Your task to perform on an android device: uninstall "Paramount+ | Peak Streaming" Image 0: 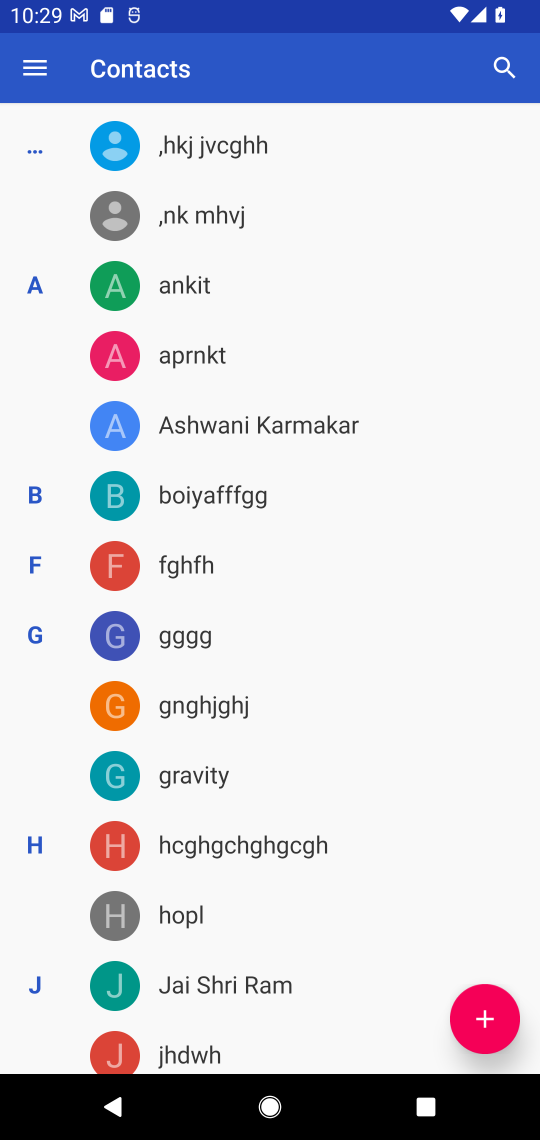
Step 0: press home button
Your task to perform on an android device: uninstall "Paramount+ | Peak Streaming" Image 1: 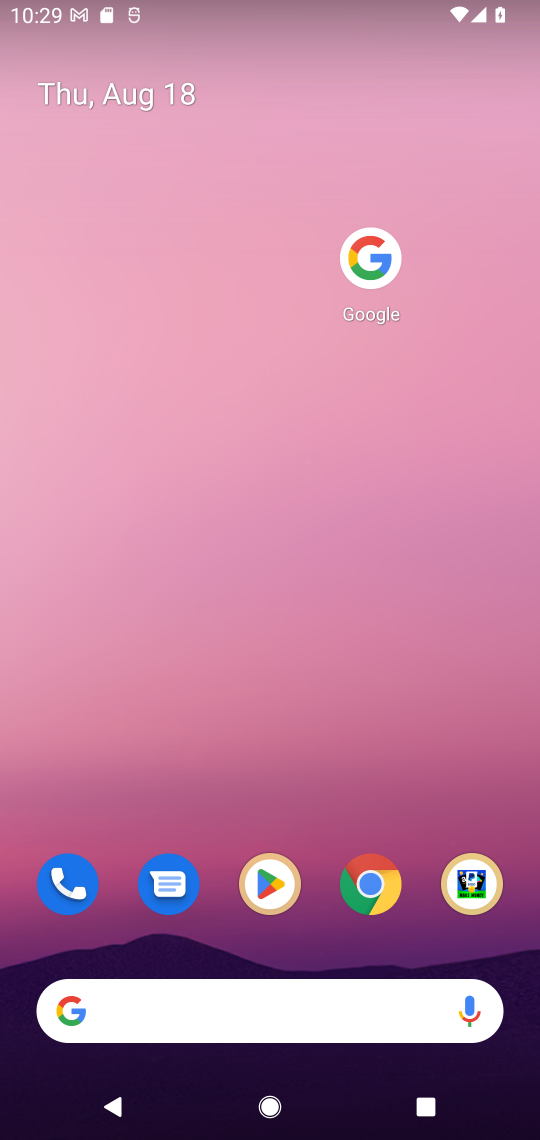
Step 1: click (276, 890)
Your task to perform on an android device: uninstall "Paramount+ | Peak Streaming" Image 2: 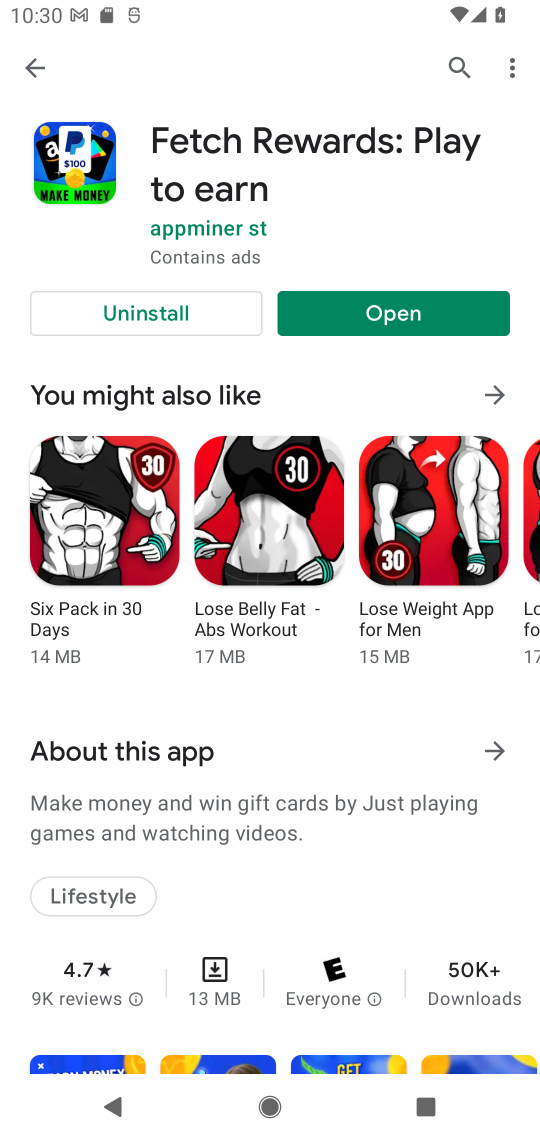
Step 2: click (448, 78)
Your task to perform on an android device: uninstall "Paramount+ | Peak Streaming" Image 3: 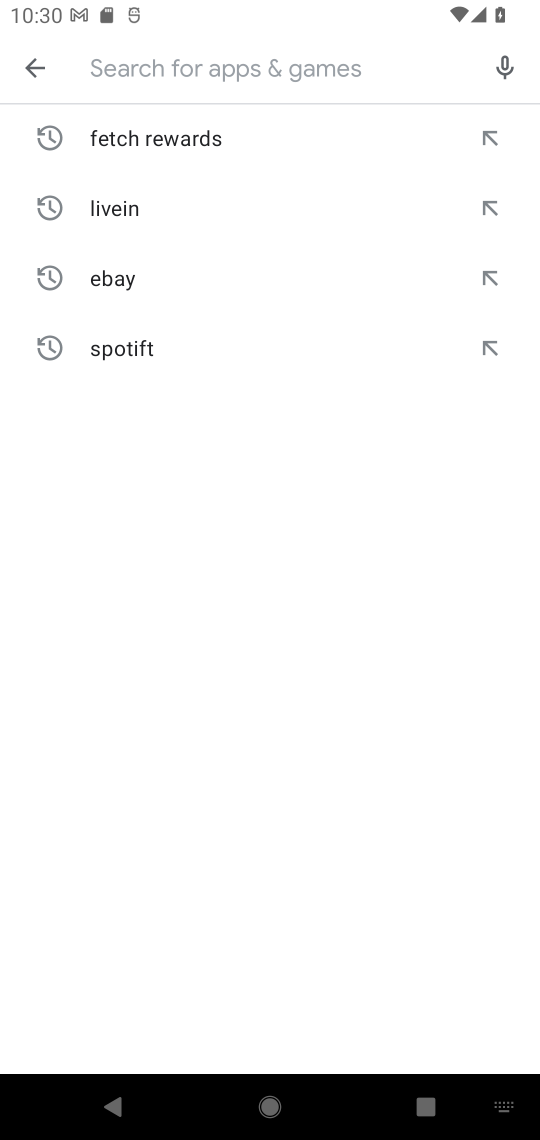
Step 3: task complete